Your task to perform on an android device: refresh tabs in the chrome app Image 0: 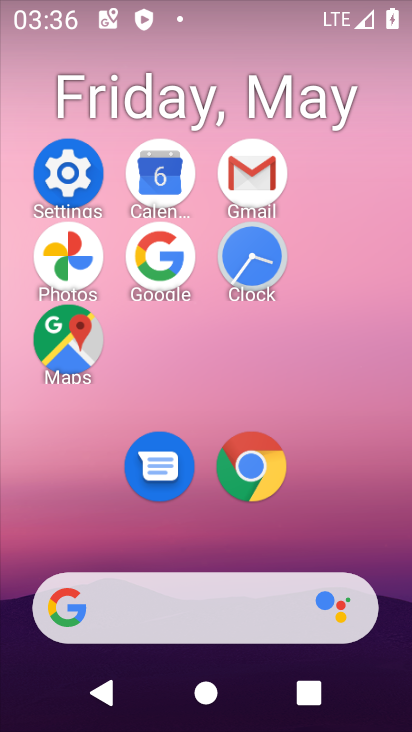
Step 0: click (274, 469)
Your task to perform on an android device: refresh tabs in the chrome app Image 1: 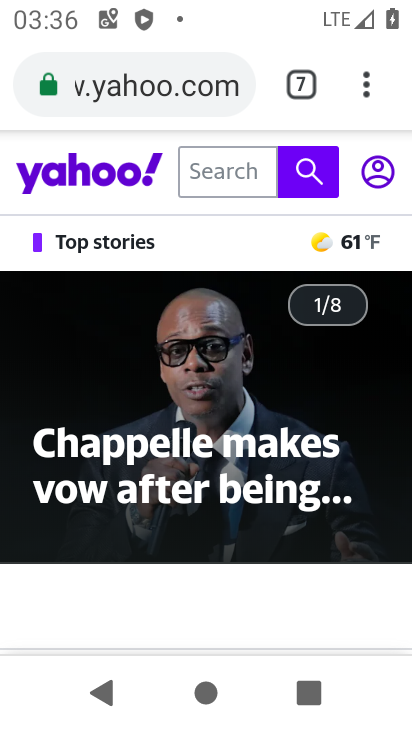
Step 1: click (368, 75)
Your task to perform on an android device: refresh tabs in the chrome app Image 2: 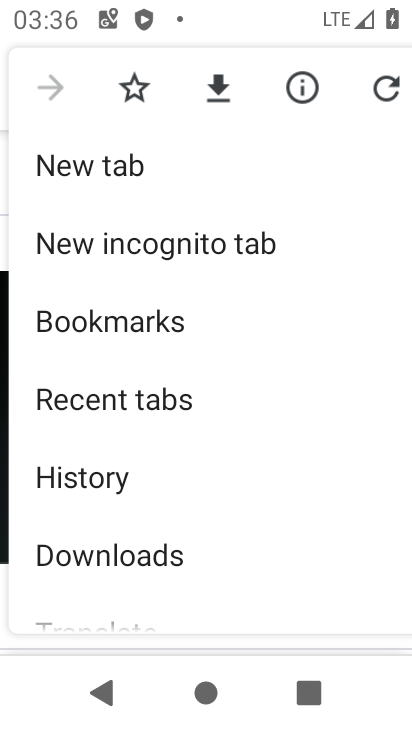
Step 2: click (386, 91)
Your task to perform on an android device: refresh tabs in the chrome app Image 3: 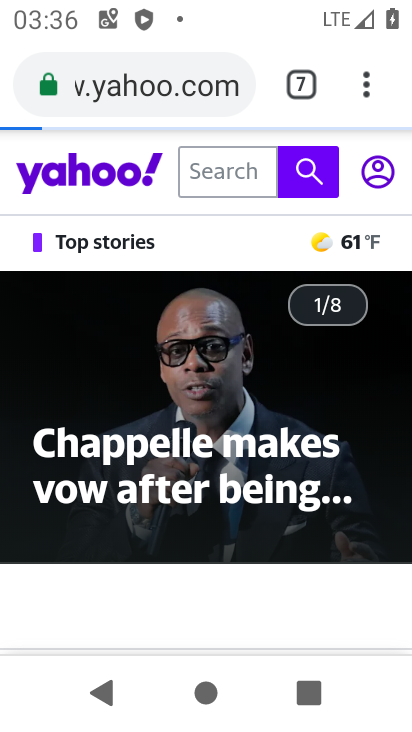
Step 3: task complete